Your task to perform on an android device: turn off notifications settings in the gmail app Image 0: 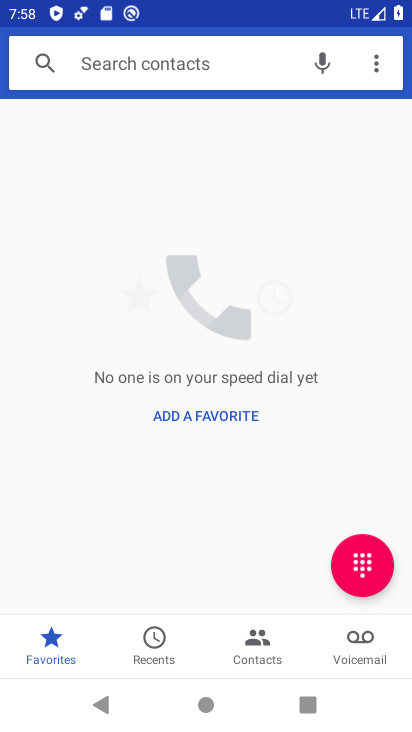
Step 0: press back button
Your task to perform on an android device: turn off notifications settings in the gmail app Image 1: 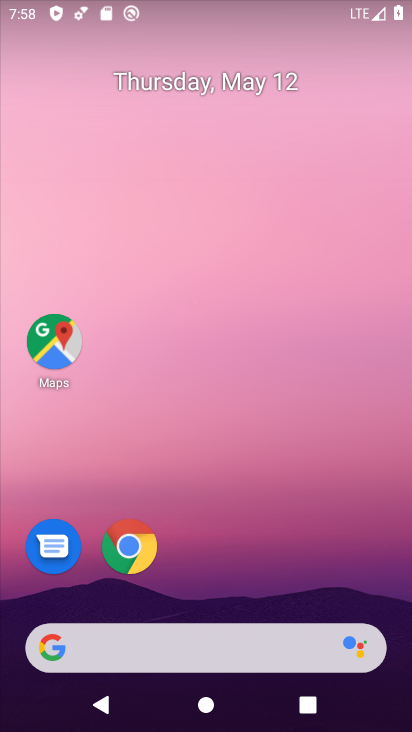
Step 1: drag from (194, 512) to (273, 40)
Your task to perform on an android device: turn off notifications settings in the gmail app Image 2: 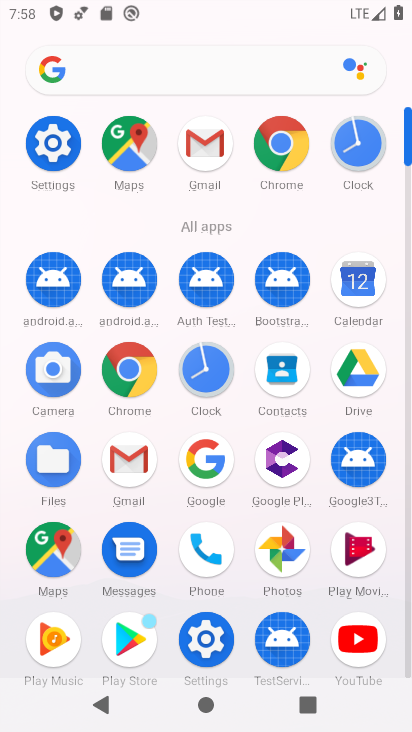
Step 2: click (198, 142)
Your task to perform on an android device: turn off notifications settings in the gmail app Image 3: 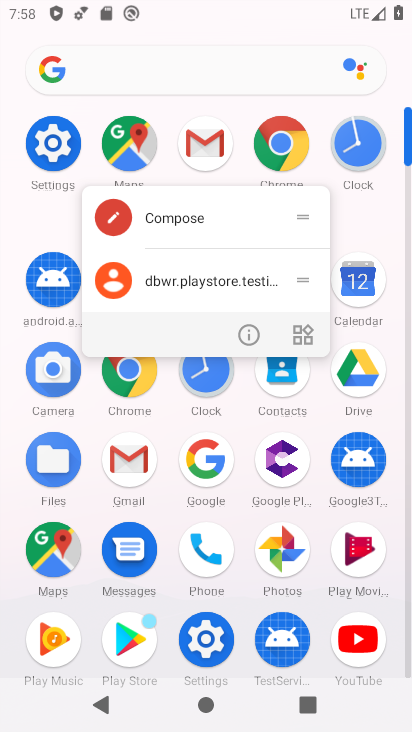
Step 3: click (251, 336)
Your task to perform on an android device: turn off notifications settings in the gmail app Image 4: 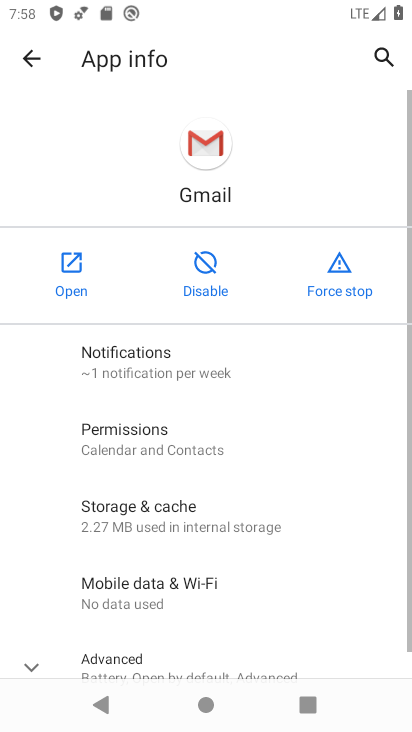
Step 4: click (149, 376)
Your task to perform on an android device: turn off notifications settings in the gmail app Image 5: 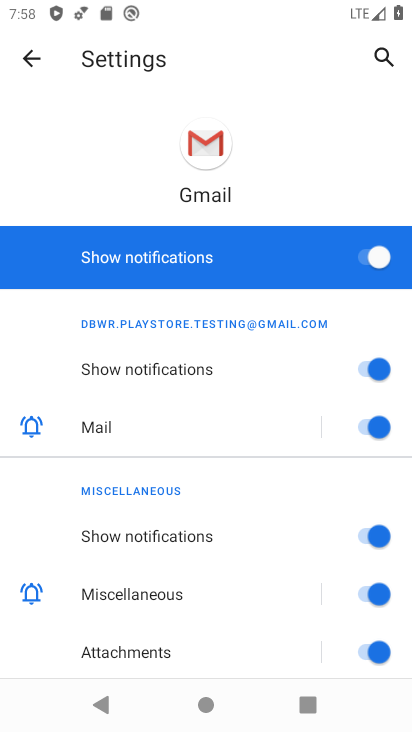
Step 5: click (367, 261)
Your task to perform on an android device: turn off notifications settings in the gmail app Image 6: 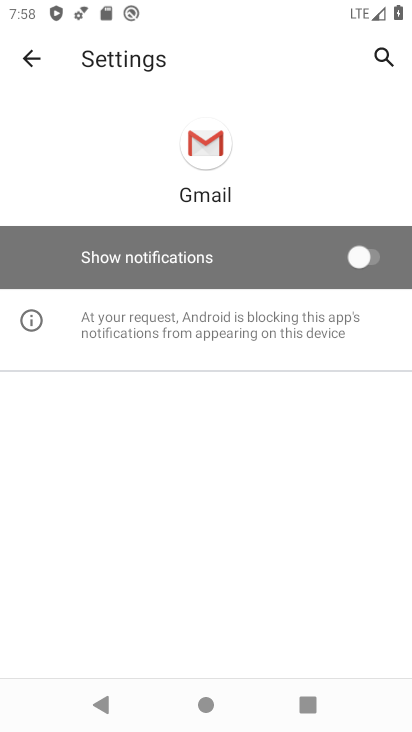
Step 6: task complete